Your task to perform on an android device: Search for Italian restaurants on Maps Image 0: 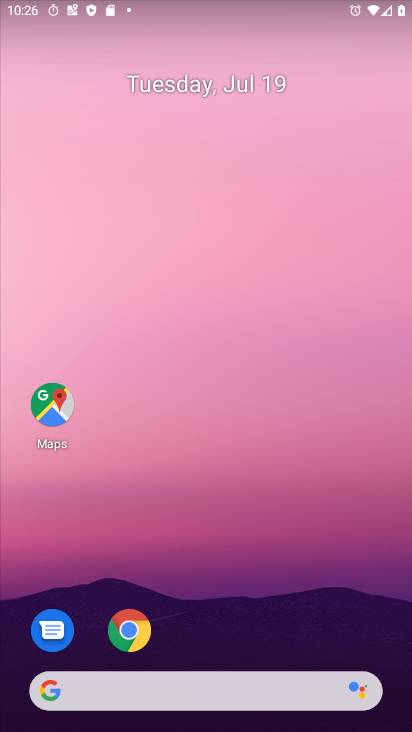
Step 0: press home button
Your task to perform on an android device: Search for Italian restaurants on Maps Image 1: 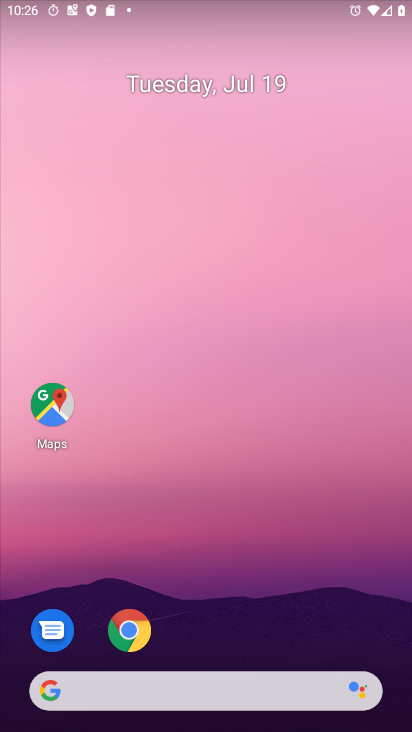
Step 1: click (39, 399)
Your task to perform on an android device: Search for Italian restaurants on Maps Image 2: 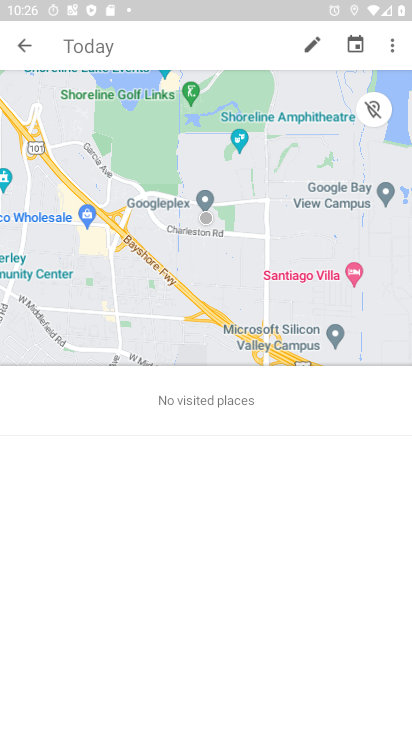
Step 2: click (20, 44)
Your task to perform on an android device: Search for Italian restaurants on Maps Image 3: 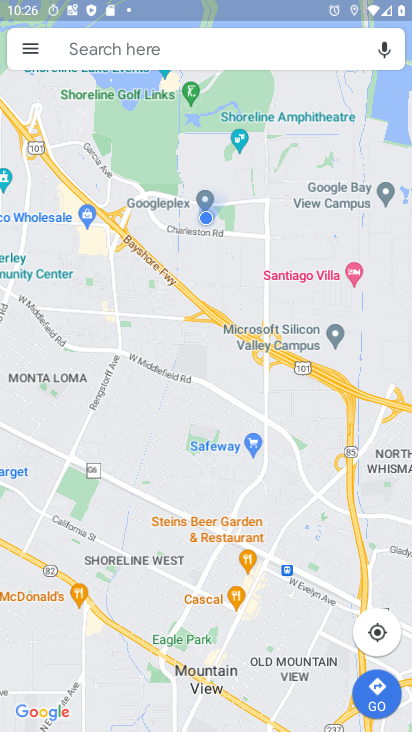
Step 3: type " Italian restaurants"
Your task to perform on an android device: Search for Italian restaurants on Maps Image 4: 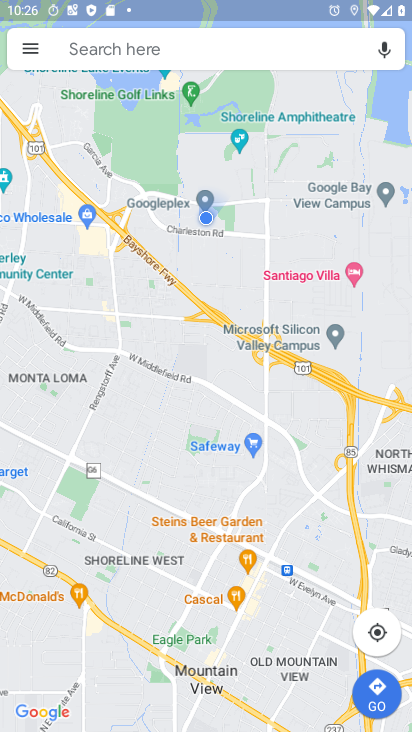
Step 4: click (129, 50)
Your task to perform on an android device: Search for Italian restaurants on Maps Image 5: 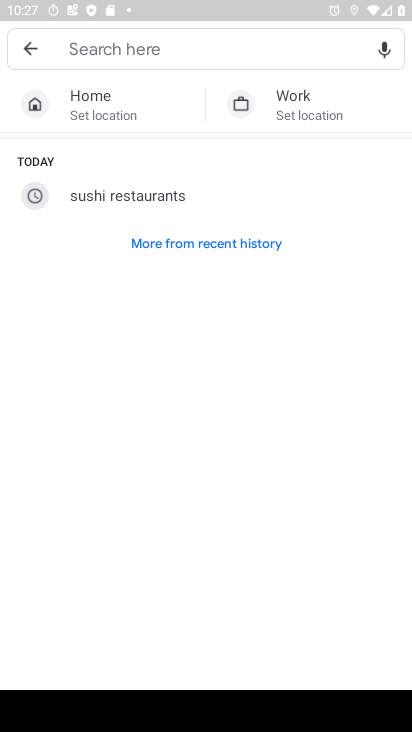
Step 5: click (157, 47)
Your task to perform on an android device: Search for Italian restaurants on Maps Image 6: 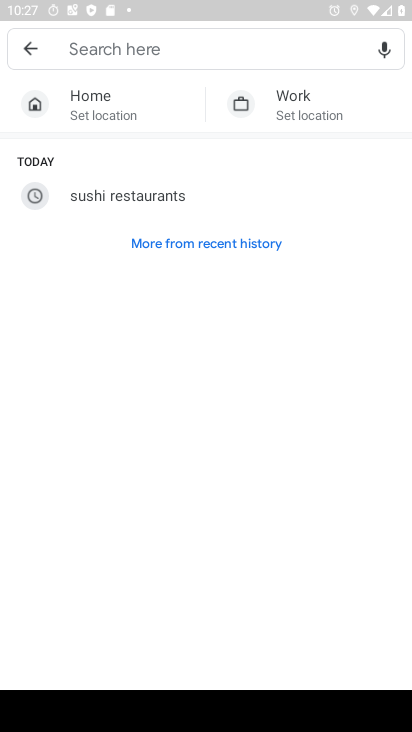
Step 6: type " Italian restaurants"
Your task to perform on an android device: Search for Italian restaurants on Maps Image 7: 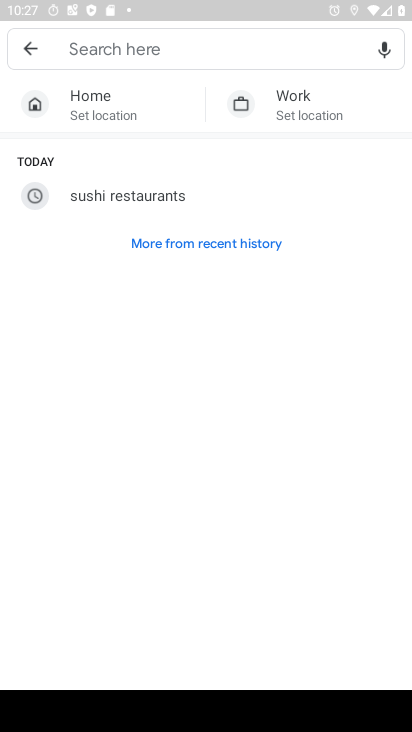
Step 7: click (131, 38)
Your task to perform on an android device: Search for Italian restaurants on Maps Image 8: 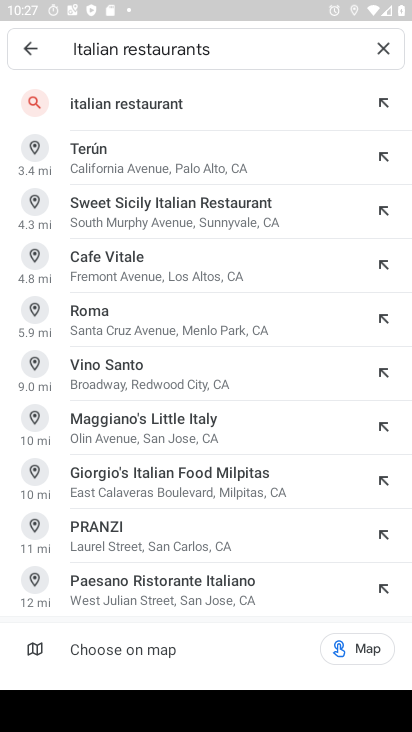
Step 8: click (136, 100)
Your task to perform on an android device: Search for Italian restaurants on Maps Image 9: 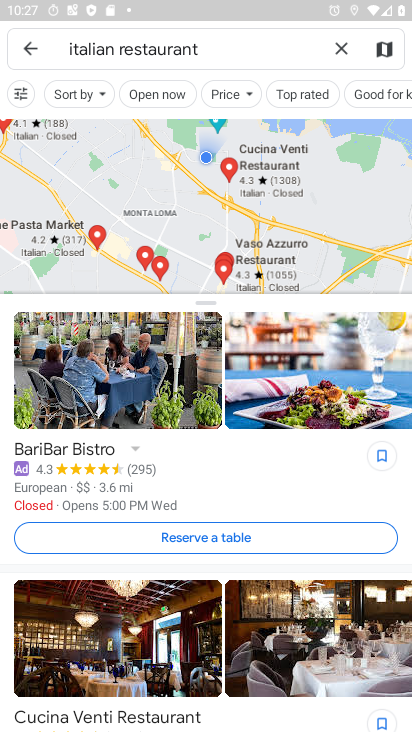
Step 9: task complete